Your task to perform on an android device: Add macbook pro 15 inch to the cart on walmart.com, then select checkout. Image 0: 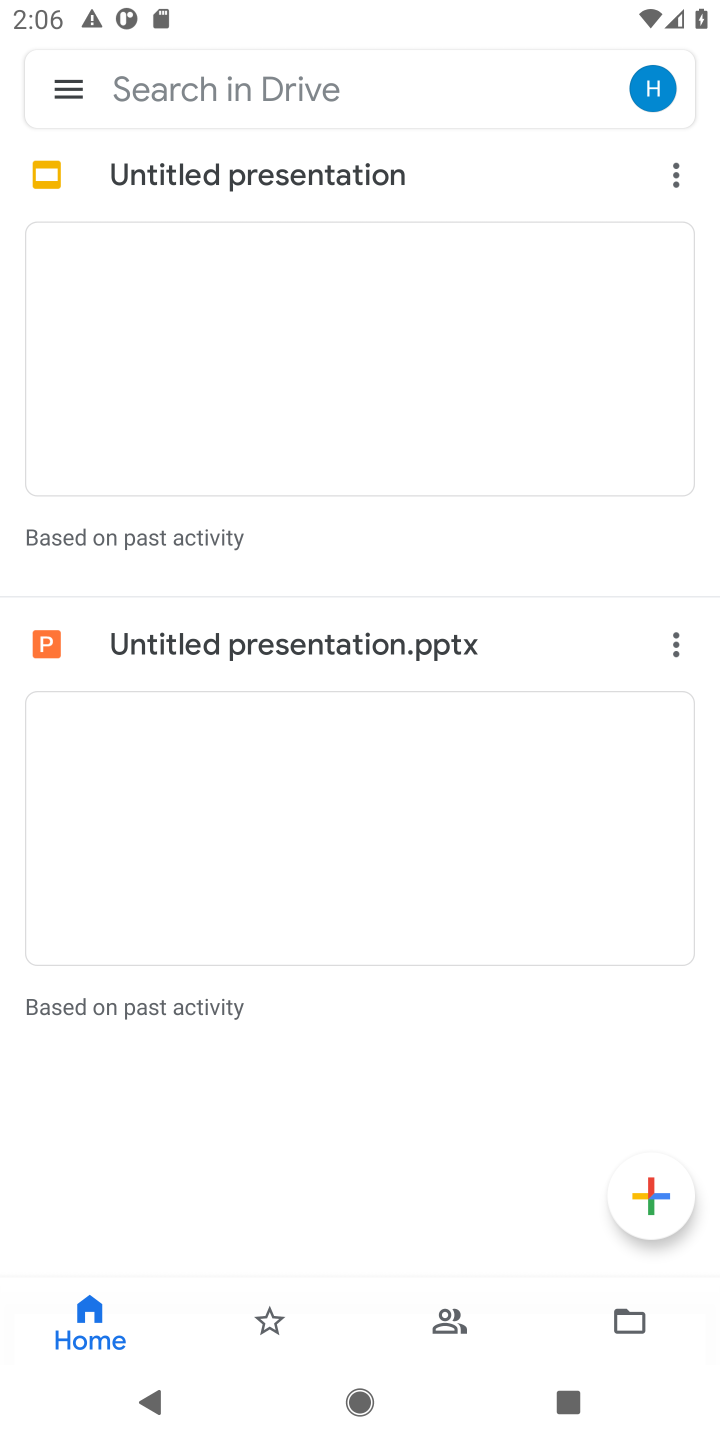
Step 0: press home button
Your task to perform on an android device: Add macbook pro 15 inch to the cart on walmart.com, then select checkout. Image 1: 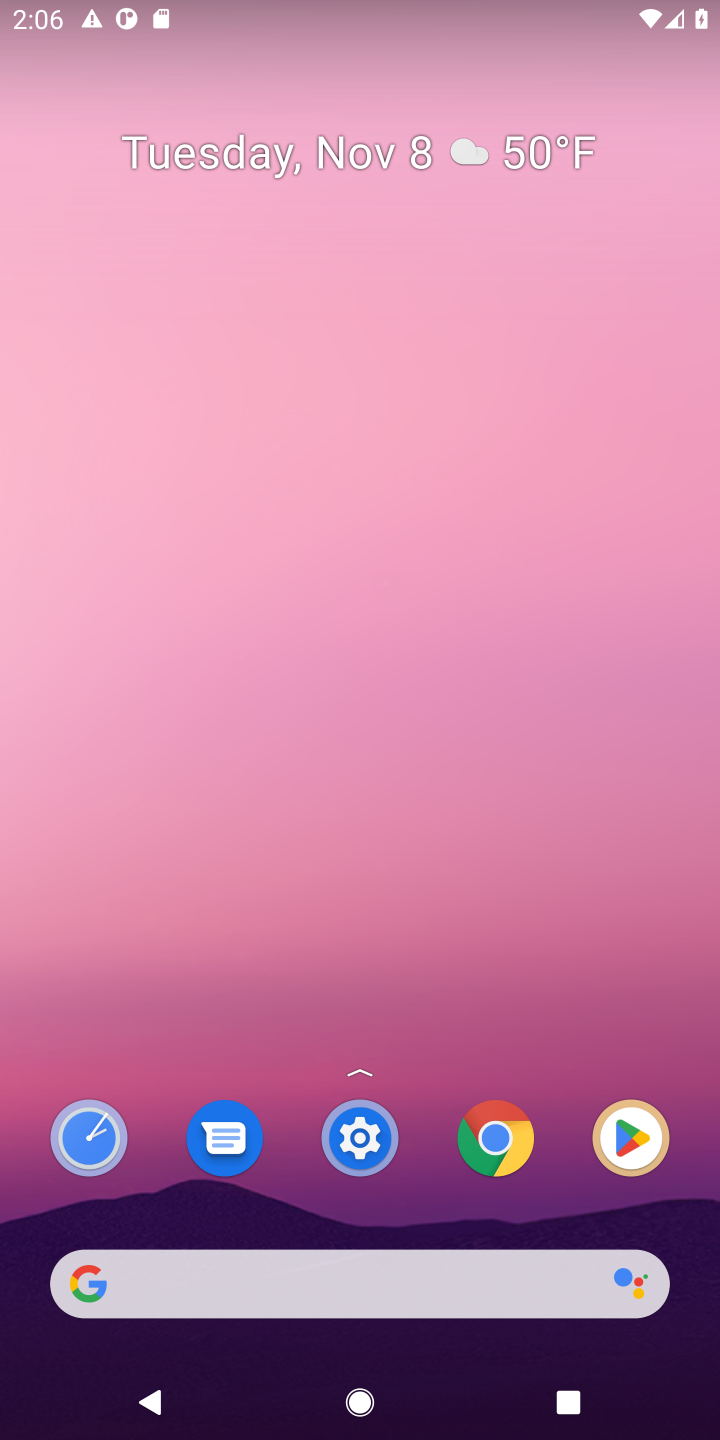
Step 1: click (384, 1299)
Your task to perform on an android device: Add macbook pro 15 inch to the cart on walmart.com, then select checkout. Image 2: 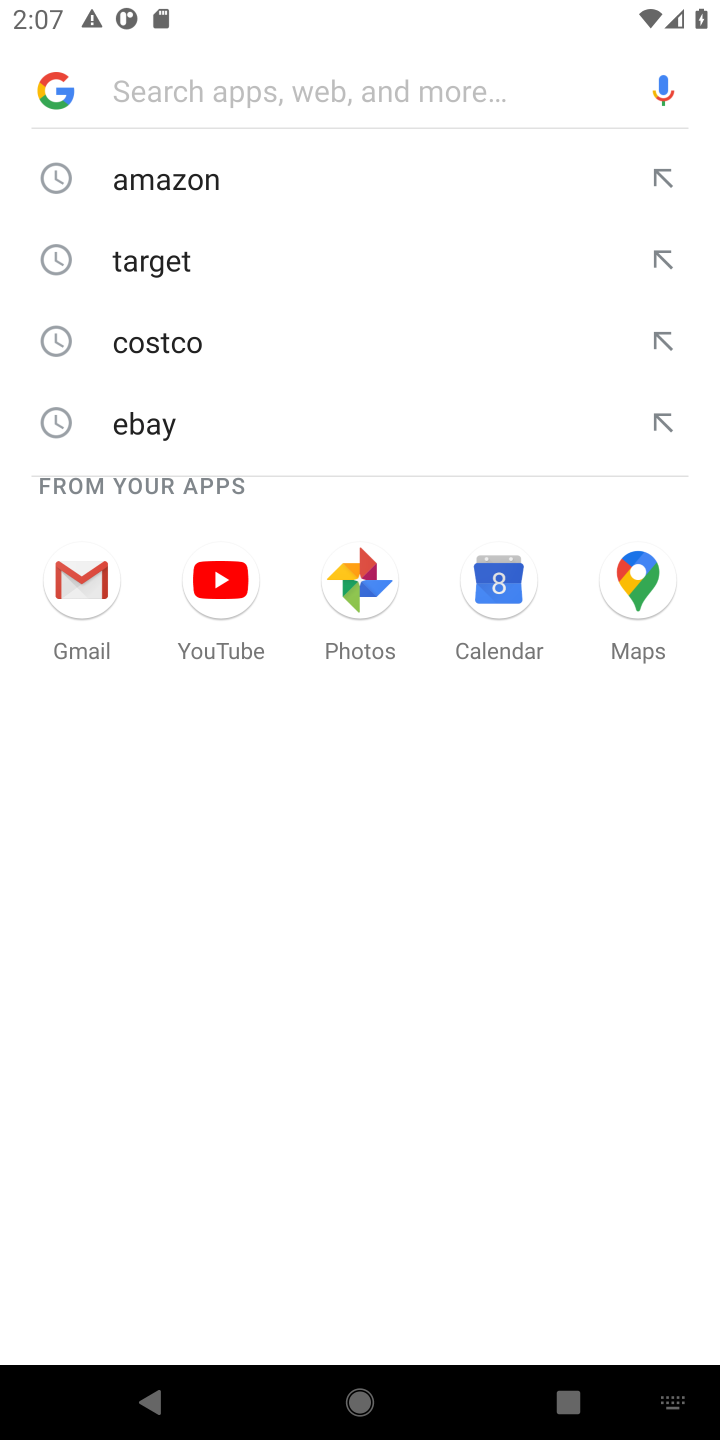
Step 2: type "walmart"
Your task to perform on an android device: Add macbook pro 15 inch to the cart on walmart.com, then select checkout. Image 3: 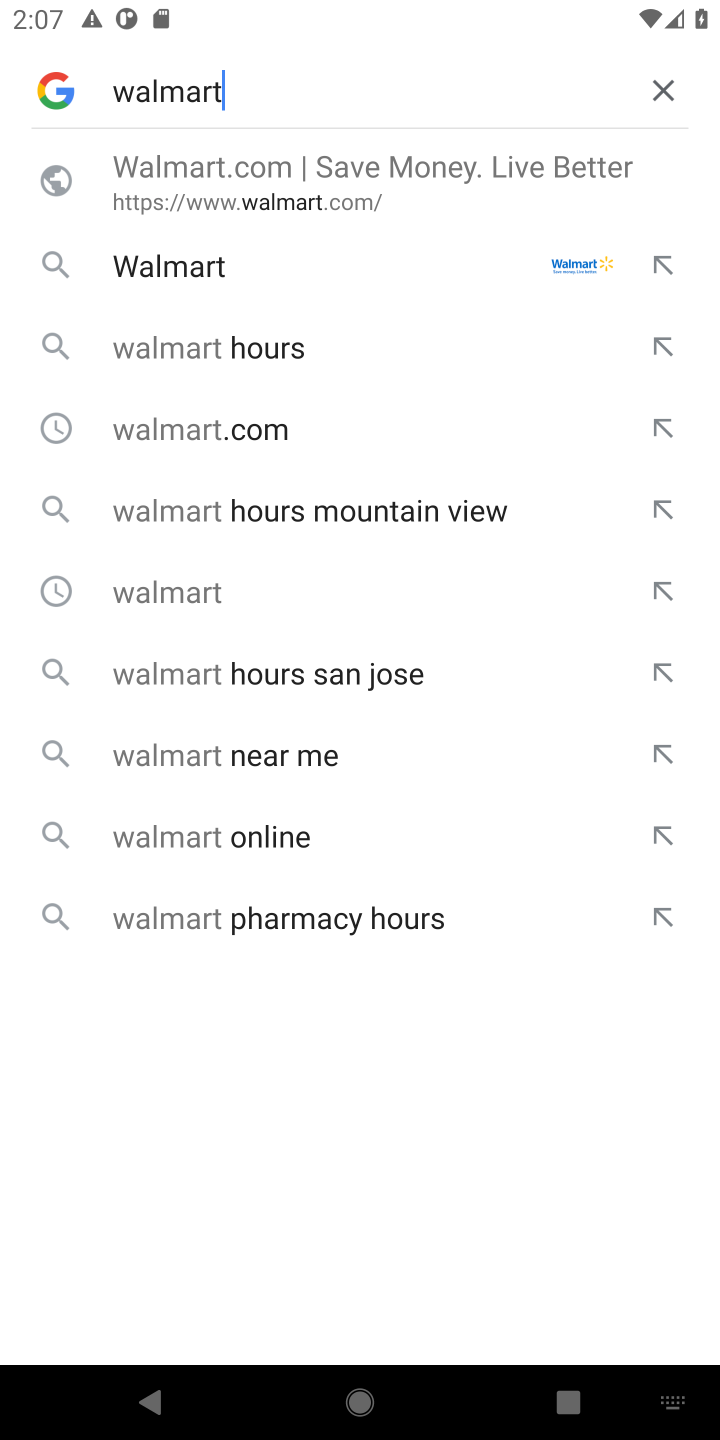
Step 3: click (437, 169)
Your task to perform on an android device: Add macbook pro 15 inch to the cart on walmart.com, then select checkout. Image 4: 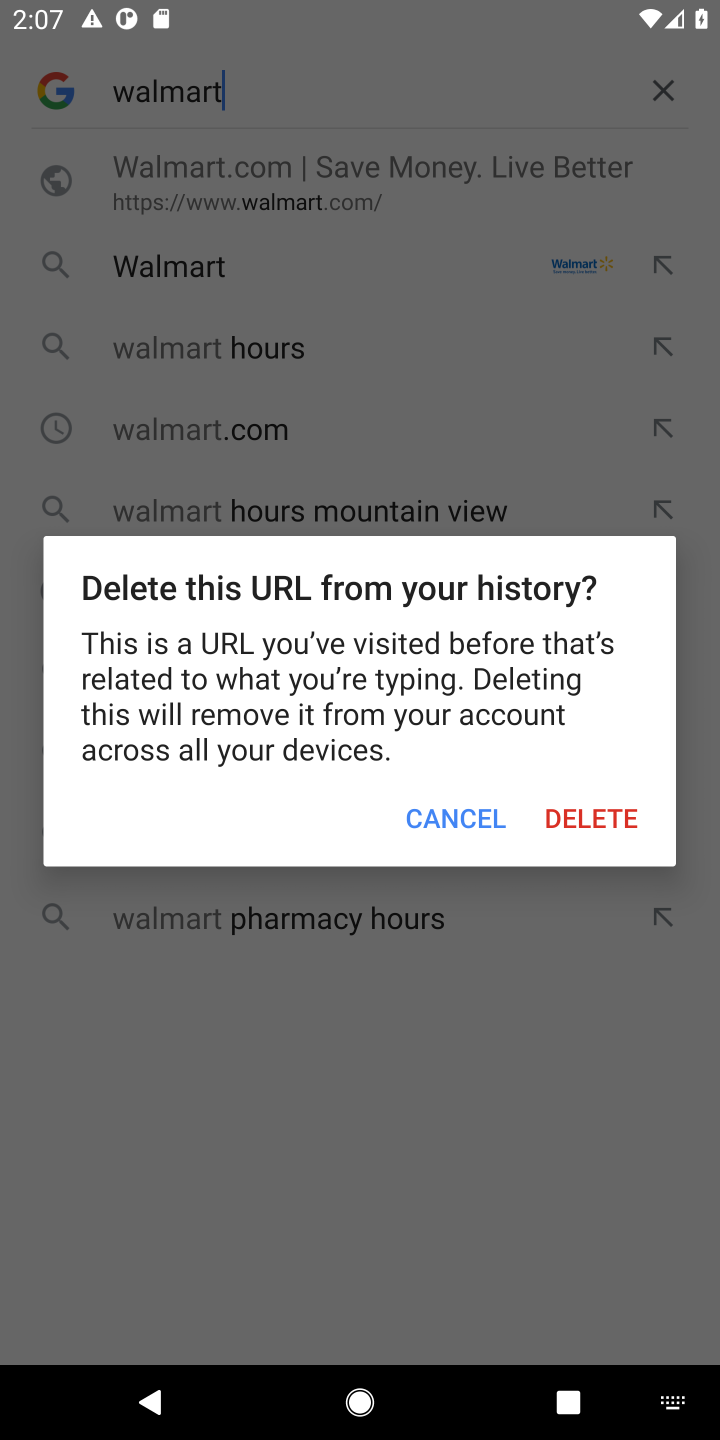
Step 4: click (621, 798)
Your task to perform on an android device: Add macbook pro 15 inch to the cart on walmart.com, then select checkout. Image 5: 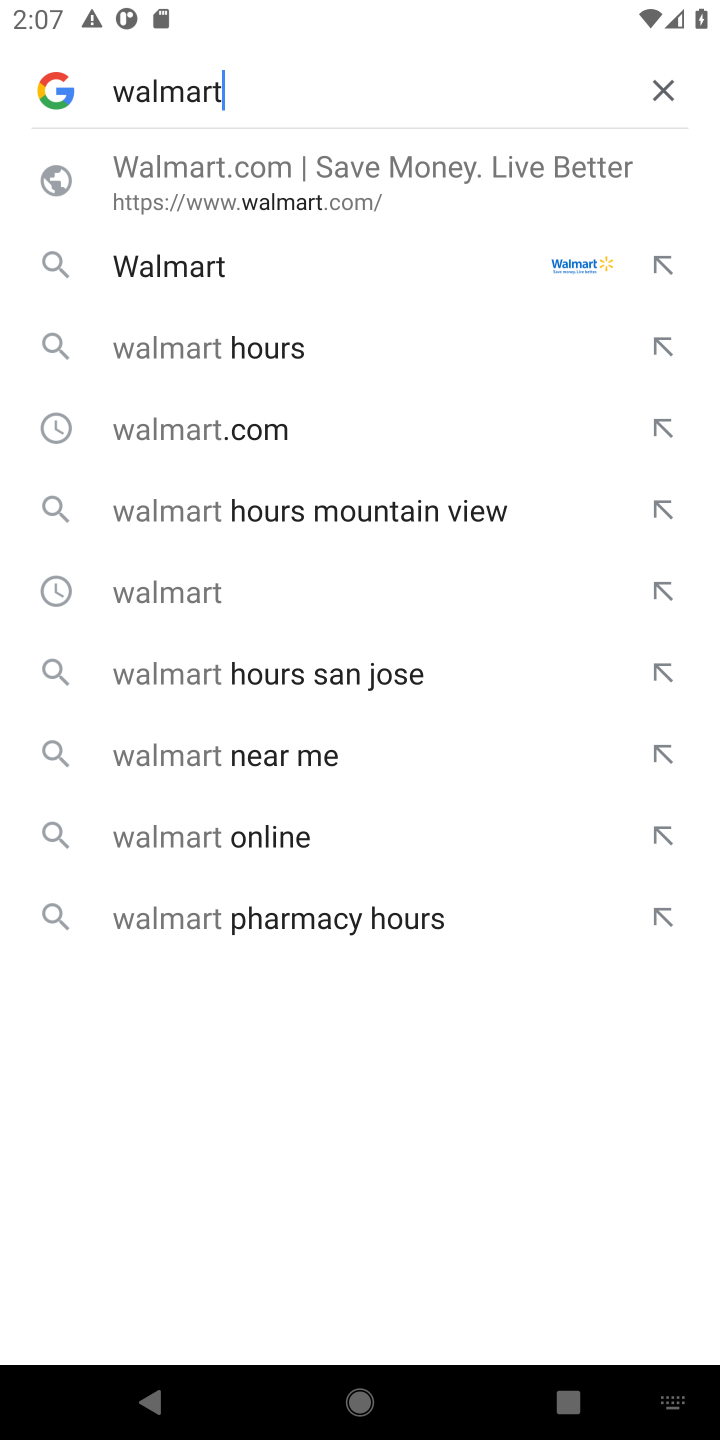
Step 5: task complete